Your task to perform on an android device: open a new tab in the chrome app Image 0: 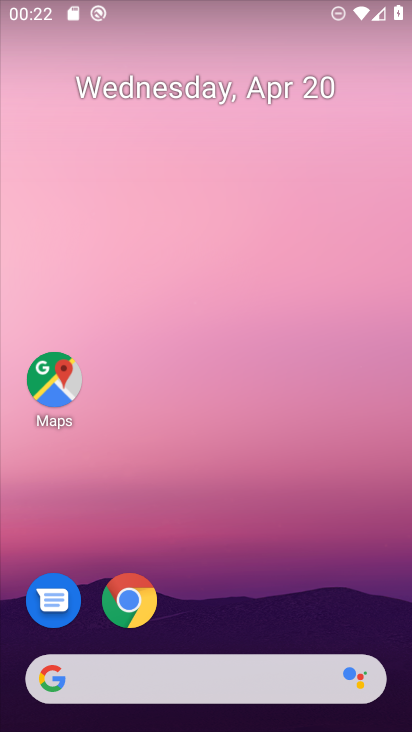
Step 0: drag from (328, 609) to (297, 181)
Your task to perform on an android device: open a new tab in the chrome app Image 1: 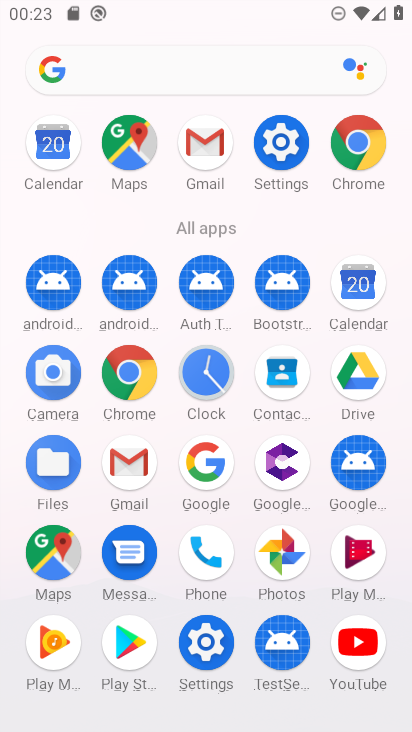
Step 1: click (112, 370)
Your task to perform on an android device: open a new tab in the chrome app Image 2: 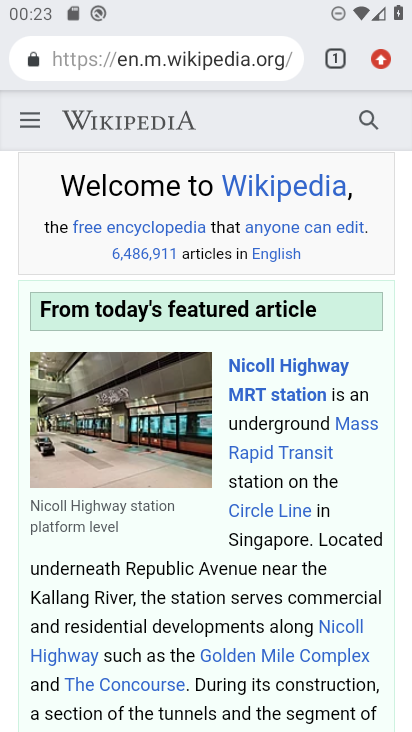
Step 2: click (340, 61)
Your task to perform on an android device: open a new tab in the chrome app Image 3: 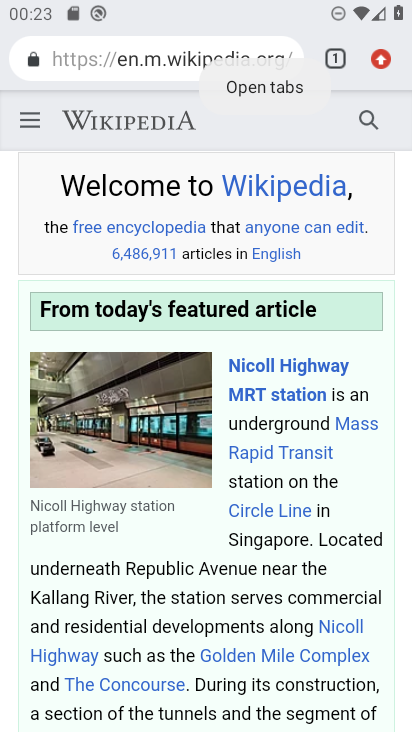
Step 3: click (340, 61)
Your task to perform on an android device: open a new tab in the chrome app Image 4: 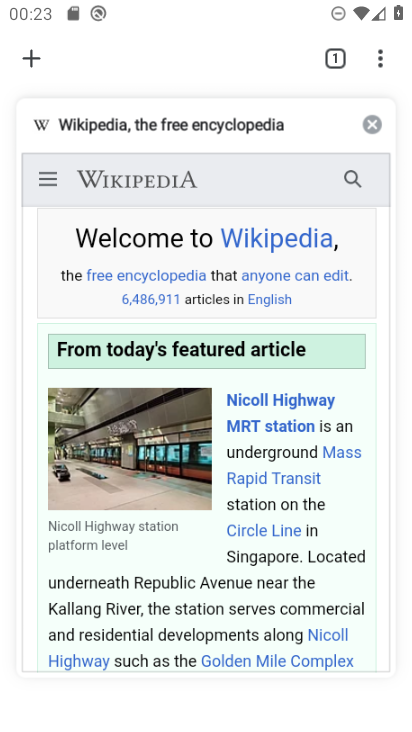
Step 4: click (22, 61)
Your task to perform on an android device: open a new tab in the chrome app Image 5: 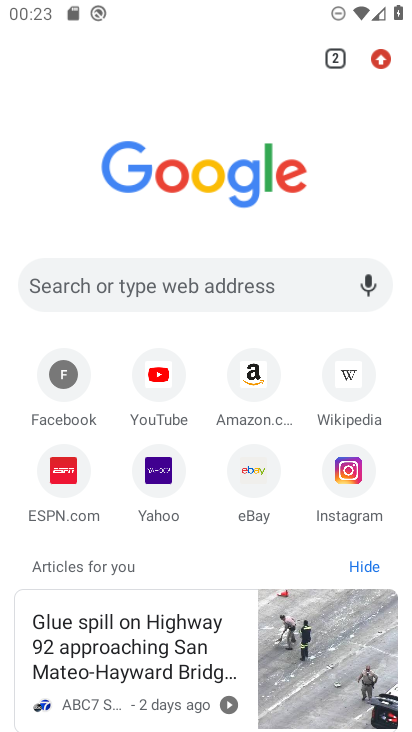
Step 5: task complete